Your task to perform on an android device: Open Reddit.com Image 0: 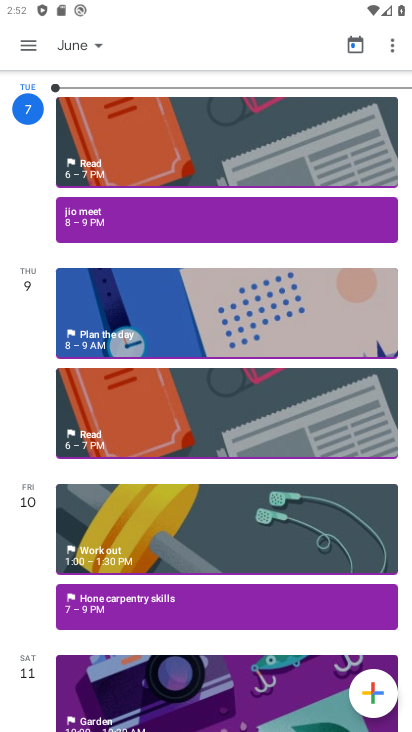
Step 0: press home button
Your task to perform on an android device: Open Reddit.com Image 1: 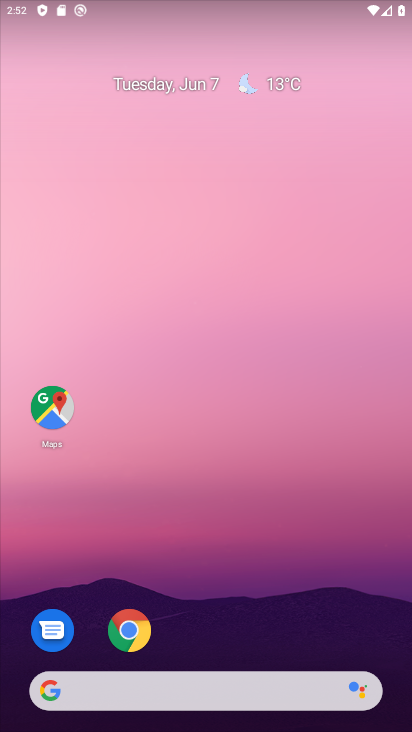
Step 1: click (147, 688)
Your task to perform on an android device: Open Reddit.com Image 2: 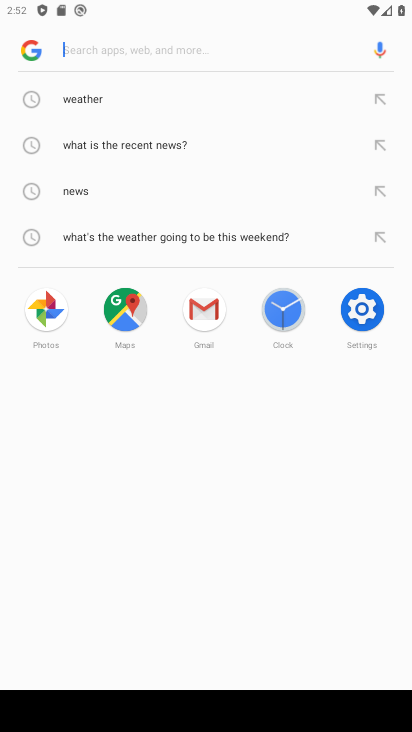
Step 2: type "Reddit.com"
Your task to perform on an android device: Open Reddit.com Image 3: 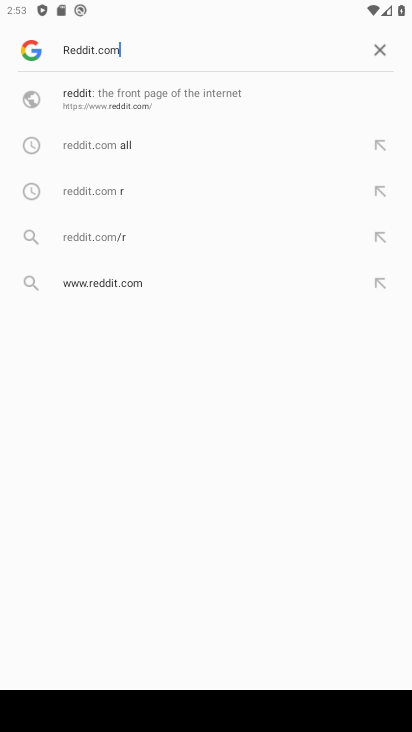
Step 3: click (173, 99)
Your task to perform on an android device: Open Reddit.com Image 4: 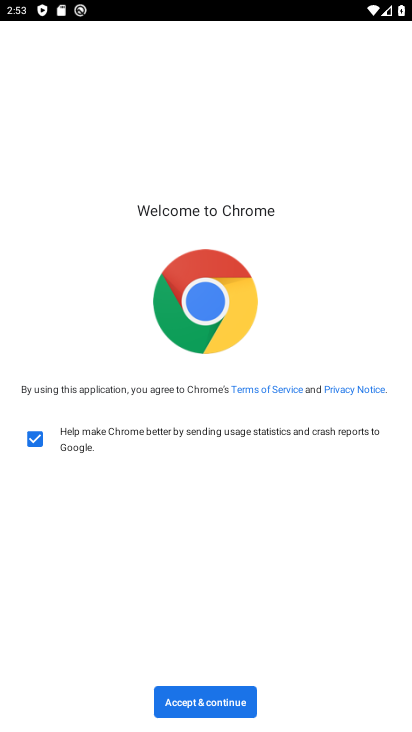
Step 4: click (217, 712)
Your task to perform on an android device: Open Reddit.com Image 5: 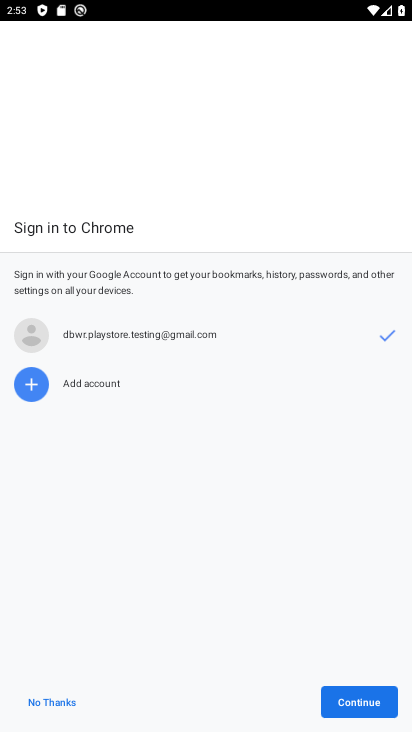
Step 5: click (375, 710)
Your task to perform on an android device: Open Reddit.com Image 6: 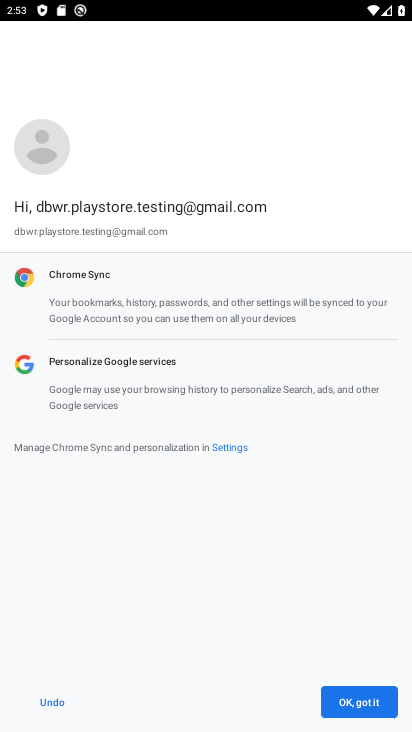
Step 6: click (356, 708)
Your task to perform on an android device: Open Reddit.com Image 7: 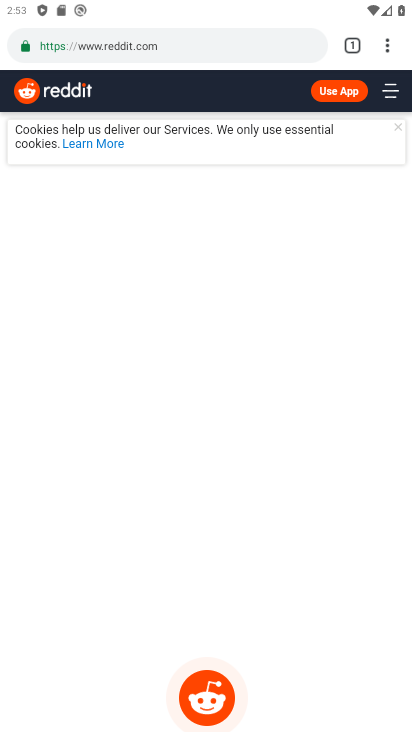
Step 7: task complete